Your task to perform on an android device: Open Reddit.com Image 0: 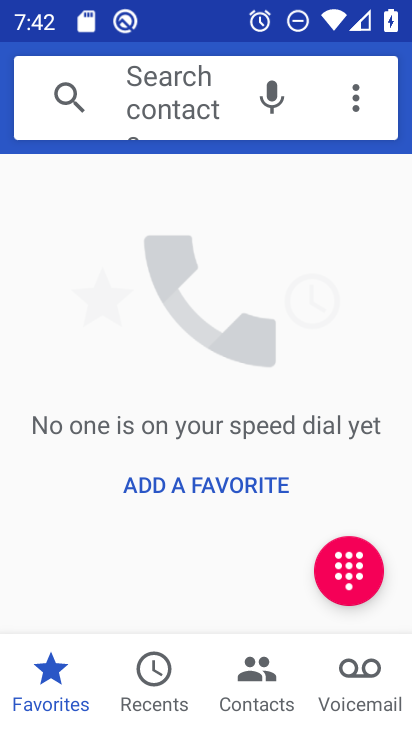
Step 0: press home button
Your task to perform on an android device: Open Reddit.com Image 1: 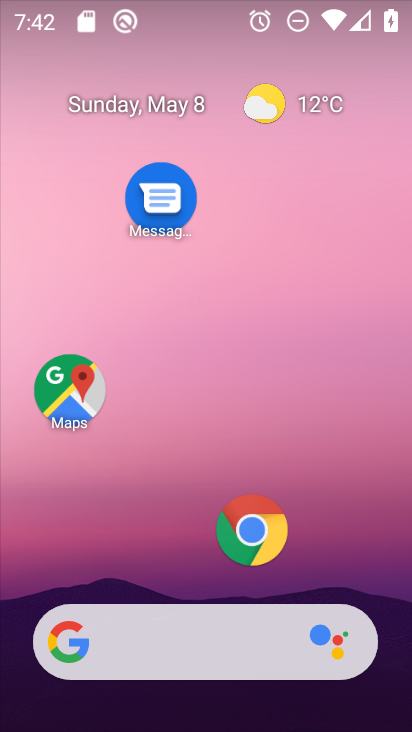
Step 1: drag from (198, 581) to (227, 113)
Your task to perform on an android device: Open Reddit.com Image 2: 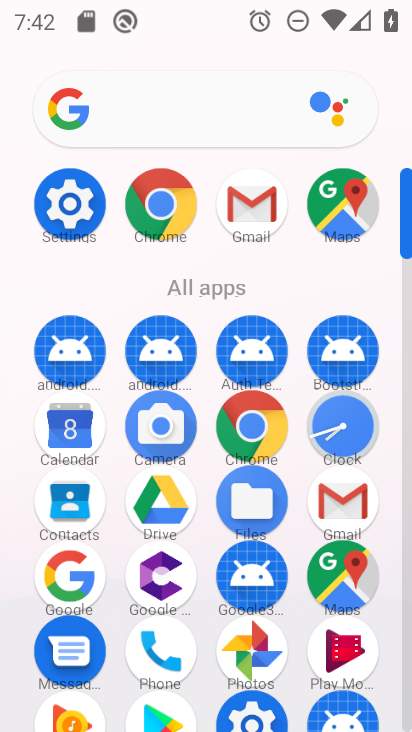
Step 2: click (249, 421)
Your task to perform on an android device: Open Reddit.com Image 3: 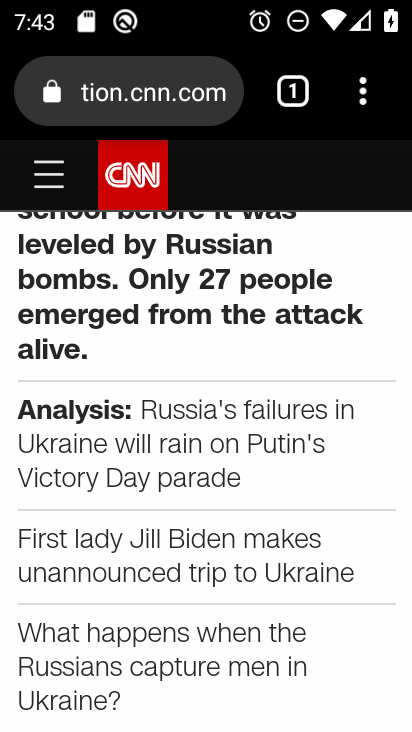
Step 3: click (290, 83)
Your task to perform on an android device: Open Reddit.com Image 4: 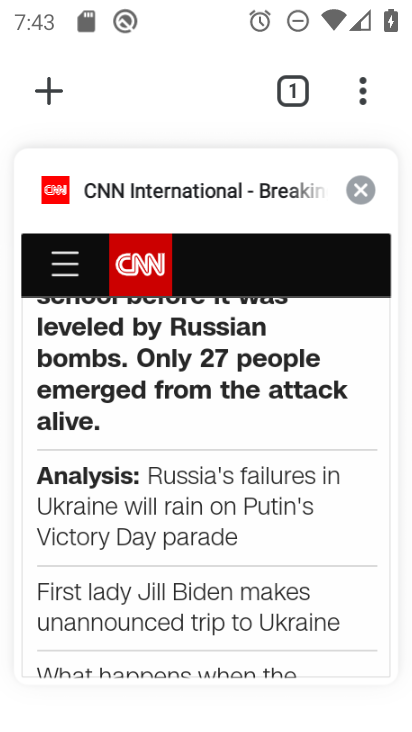
Step 4: click (359, 188)
Your task to perform on an android device: Open Reddit.com Image 5: 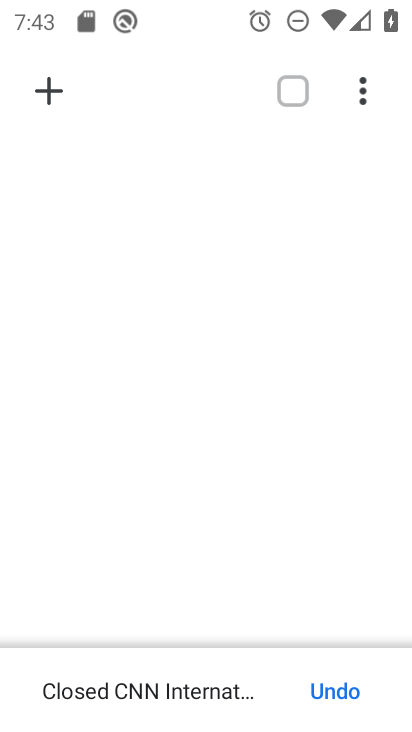
Step 5: click (55, 93)
Your task to perform on an android device: Open Reddit.com Image 6: 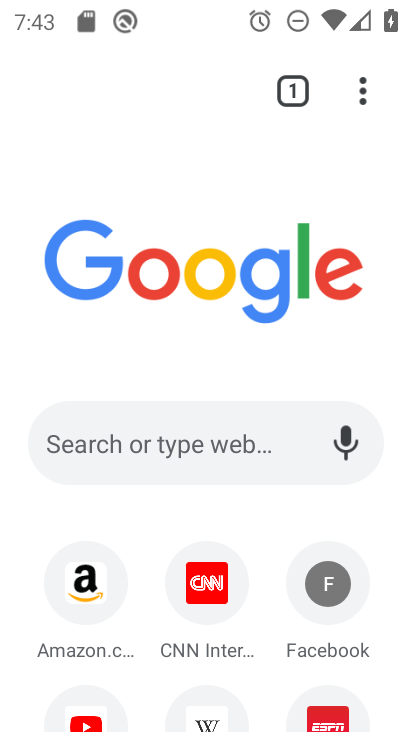
Step 6: click (102, 438)
Your task to perform on an android device: Open Reddit.com Image 7: 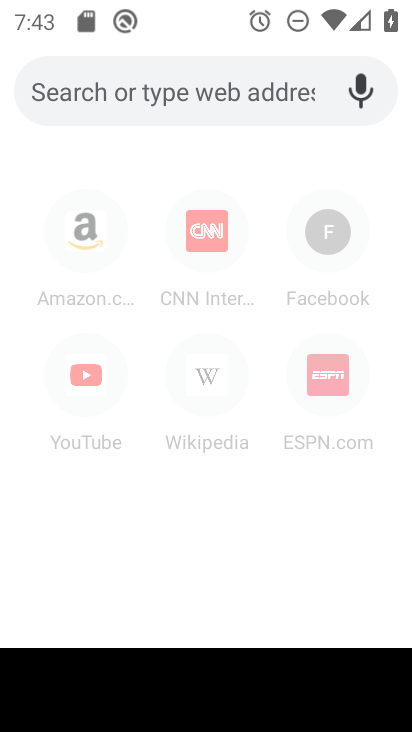
Step 7: type "reddit.com"
Your task to perform on an android device: Open Reddit.com Image 8: 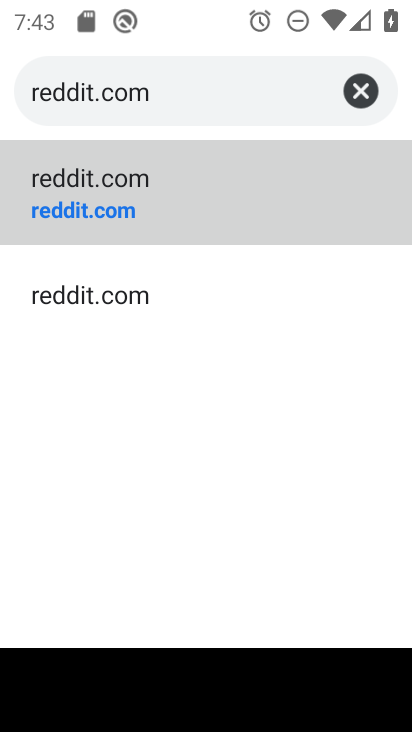
Step 8: click (141, 196)
Your task to perform on an android device: Open Reddit.com Image 9: 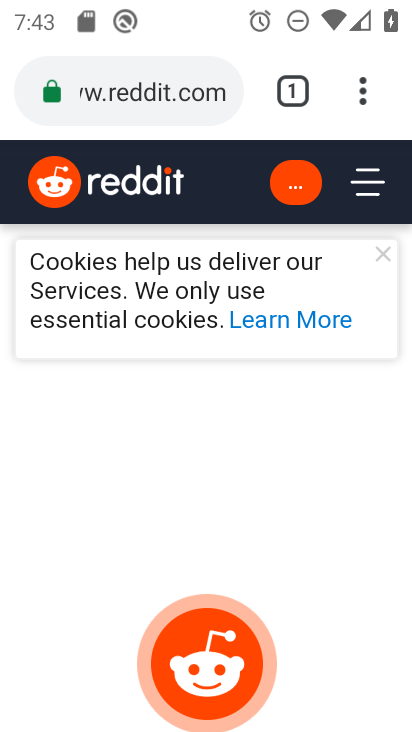
Step 9: drag from (287, 588) to (280, 185)
Your task to perform on an android device: Open Reddit.com Image 10: 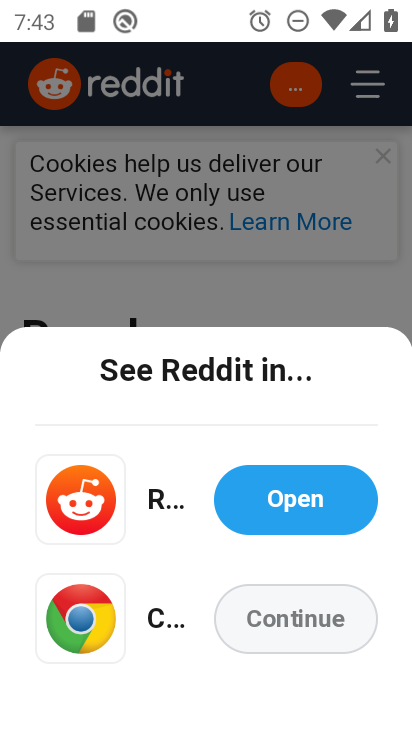
Step 10: click (296, 624)
Your task to perform on an android device: Open Reddit.com Image 11: 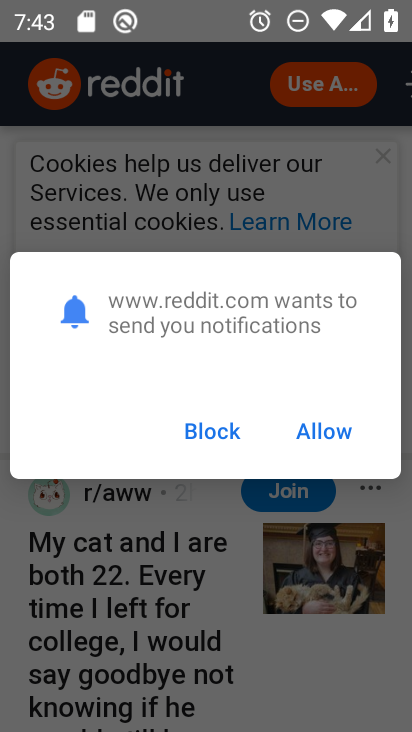
Step 11: click (340, 431)
Your task to perform on an android device: Open Reddit.com Image 12: 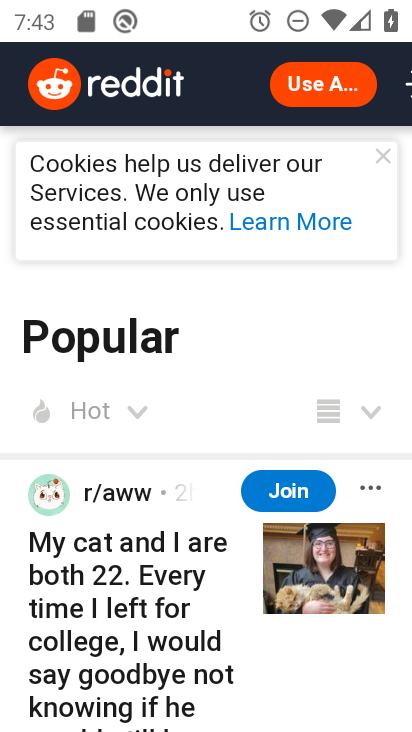
Step 12: task complete